Your task to perform on an android device: manage bookmarks in the chrome app Image 0: 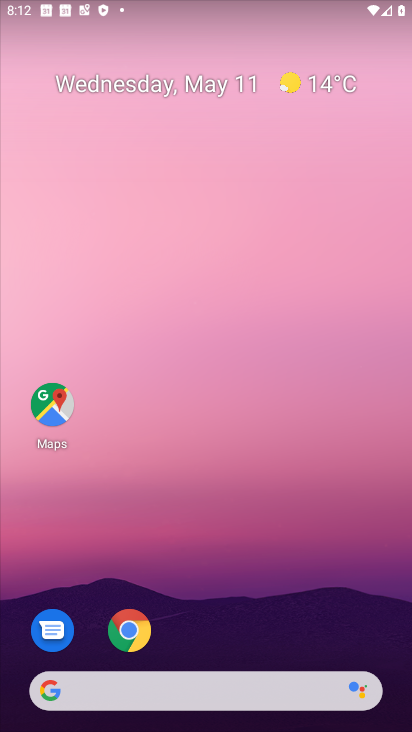
Step 0: click (141, 628)
Your task to perform on an android device: manage bookmarks in the chrome app Image 1: 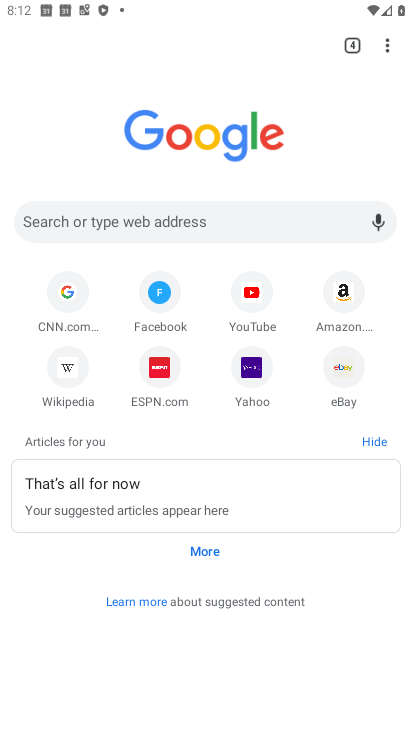
Step 1: click (382, 39)
Your task to perform on an android device: manage bookmarks in the chrome app Image 2: 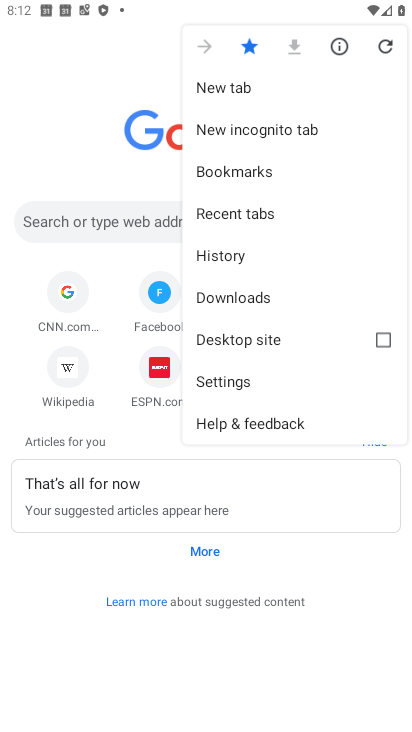
Step 2: click (218, 165)
Your task to perform on an android device: manage bookmarks in the chrome app Image 3: 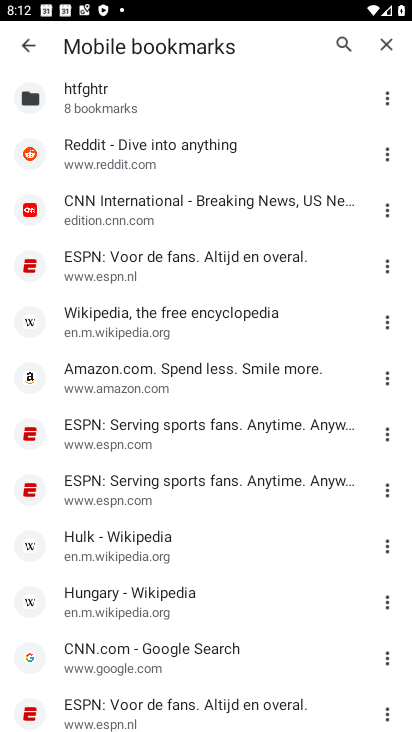
Step 3: click (386, 213)
Your task to perform on an android device: manage bookmarks in the chrome app Image 4: 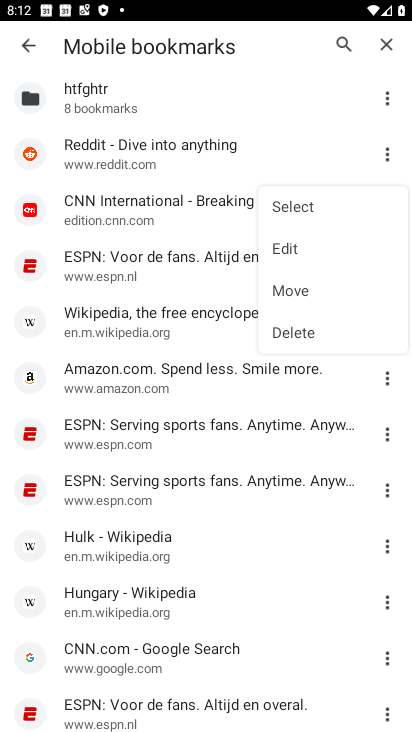
Step 4: click (296, 242)
Your task to perform on an android device: manage bookmarks in the chrome app Image 5: 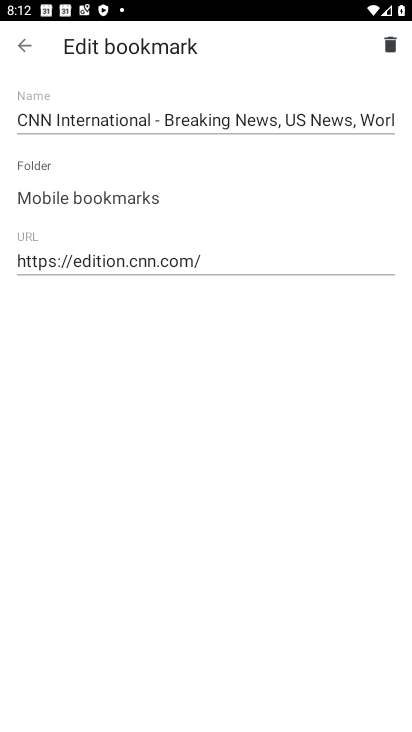
Step 5: task complete